Your task to perform on an android device: see tabs open on other devices in the chrome app Image 0: 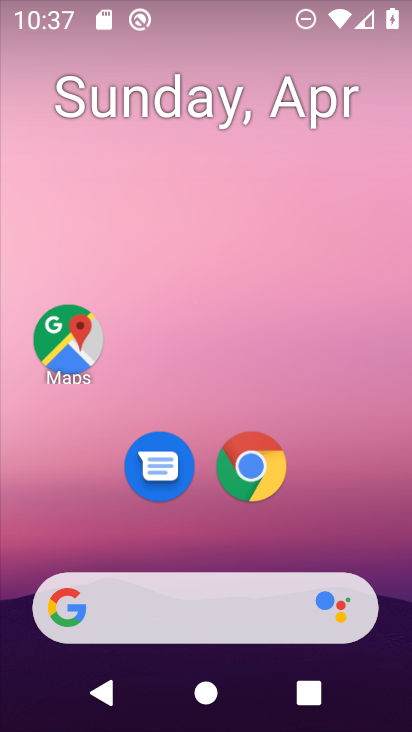
Step 0: drag from (361, 551) to (356, 117)
Your task to perform on an android device: see tabs open on other devices in the chrome app Image 1: 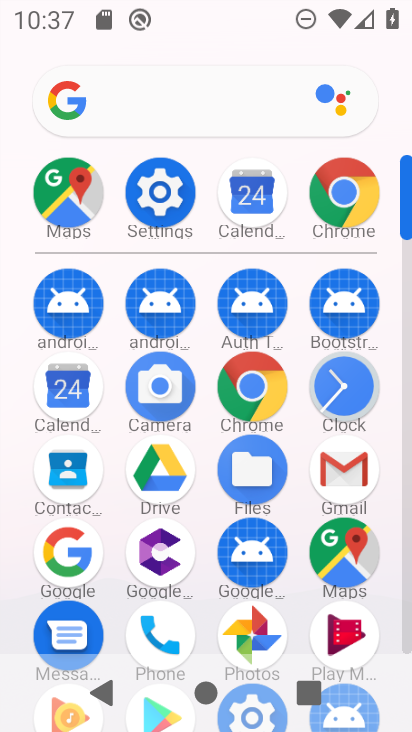
Step 1: click (345, 207)
Your task to perform on an android device: see tabs open on other devices in the chrome app Image 2: 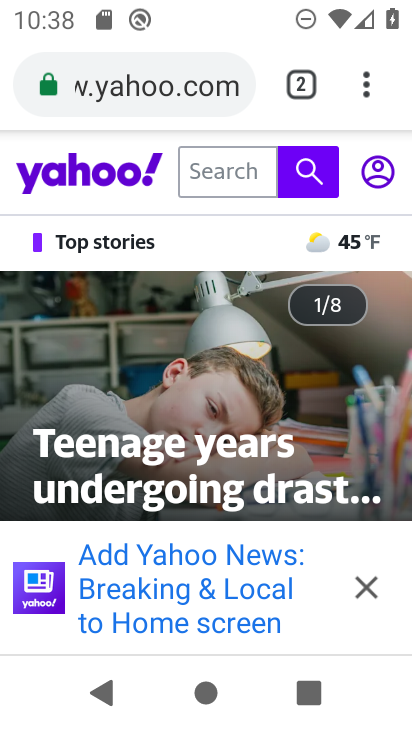
Step 2: press back button
Your task to perform on an android device: see tabs open on other devices in the chrome app Image 3: 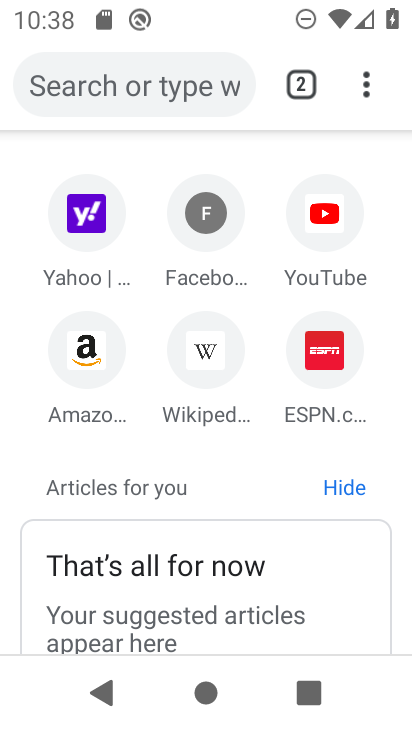
Step 3: click (369, 85)
Your task to perform on an android device: see tabs open on other devices in the chrome app Image 4: 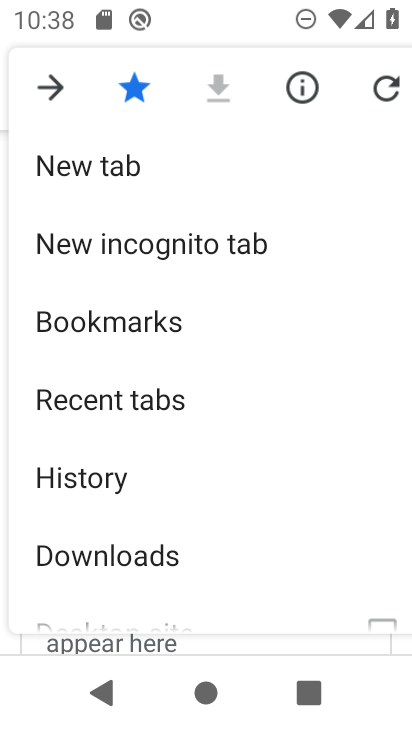
Step 4: click (157, 394)
Your task to perform on an android device: see tabs open on other devices in the chrome app Image 5: 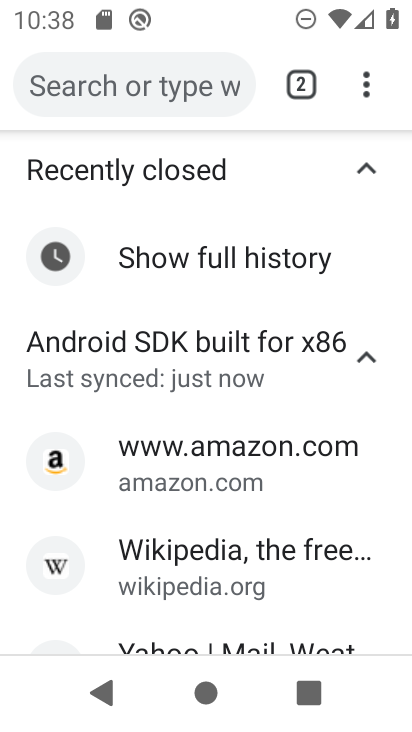
Step 5: click (311, 81)
Your task to perform on an android device: see tabs open on other devices in the chrome app Image 6: 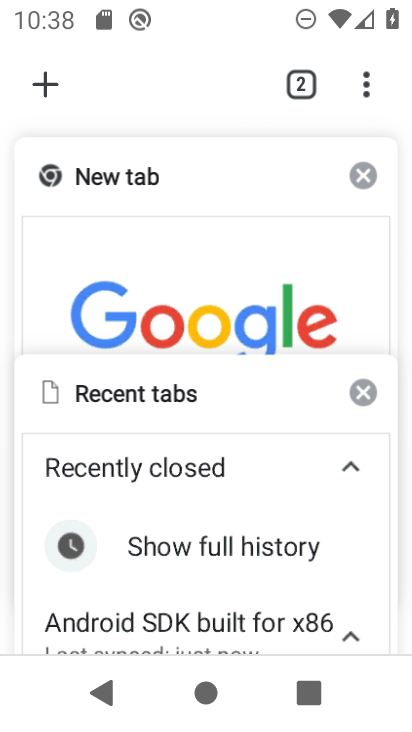
Step 6: task complete